Your task to perform on an android device: How big is the earth? Image 0: 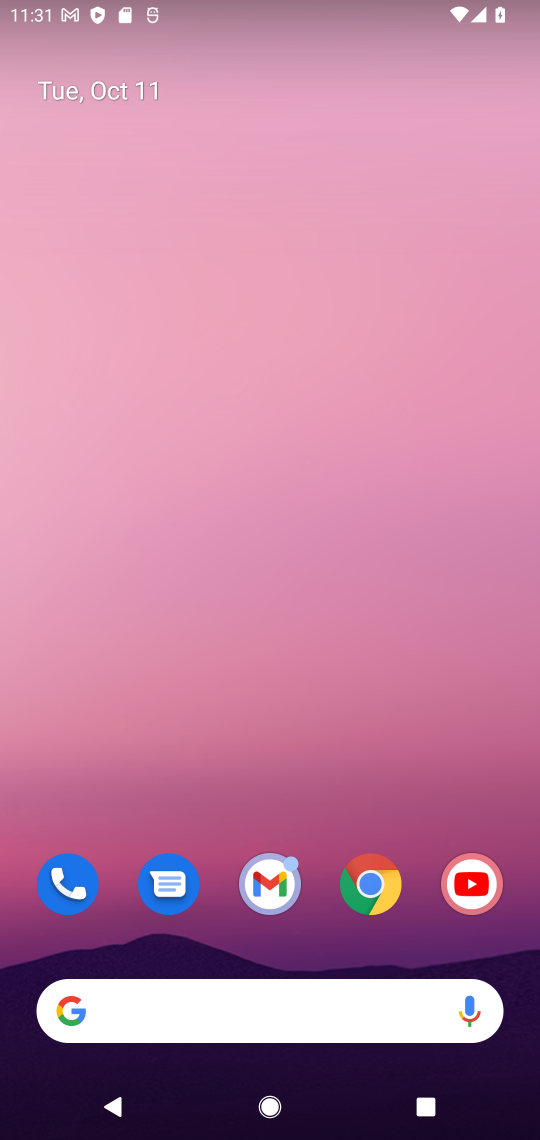
Step 0: drag from (217, 815) to (197, 347)
Your task to perform on an android device: How big is the earth? Image 1: 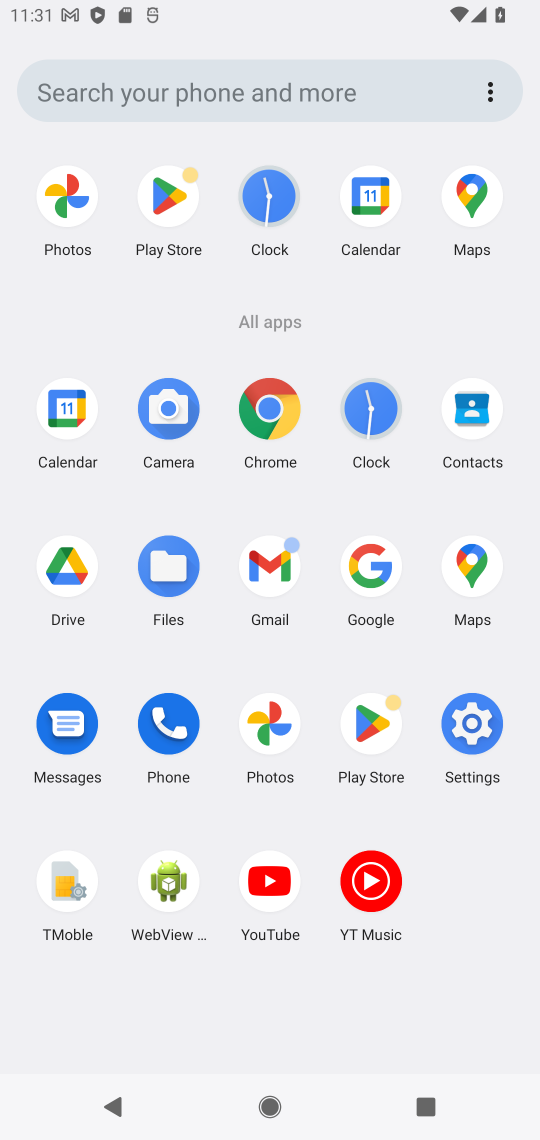
Step 1: click (372, 559)
Your task to perform on an android device: How big is the earth? Image 2: 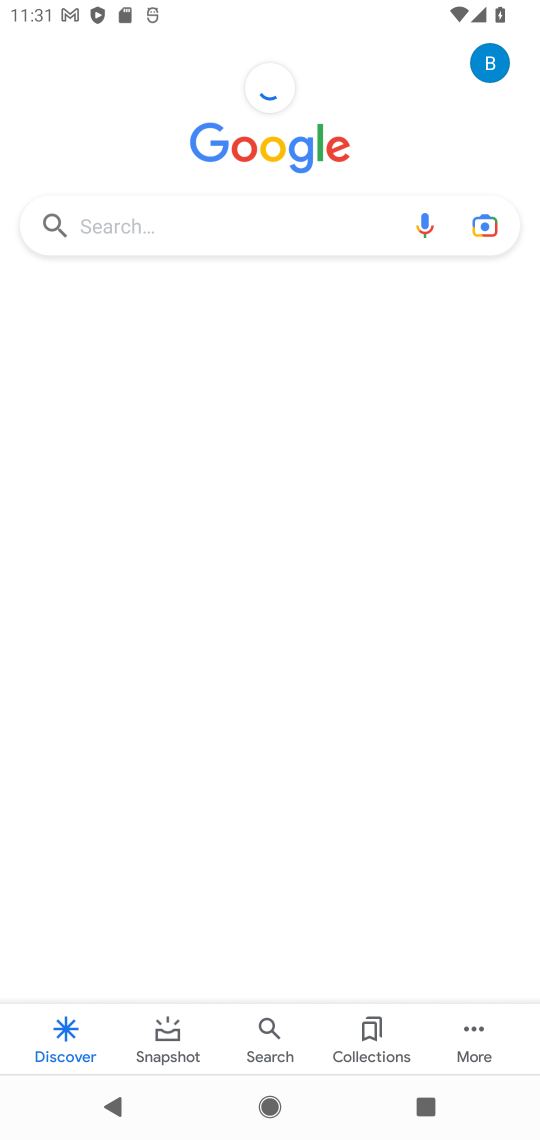
Step 2: click (215, 223)
Your task to perform on an android device: How big is the earth? Image 3: 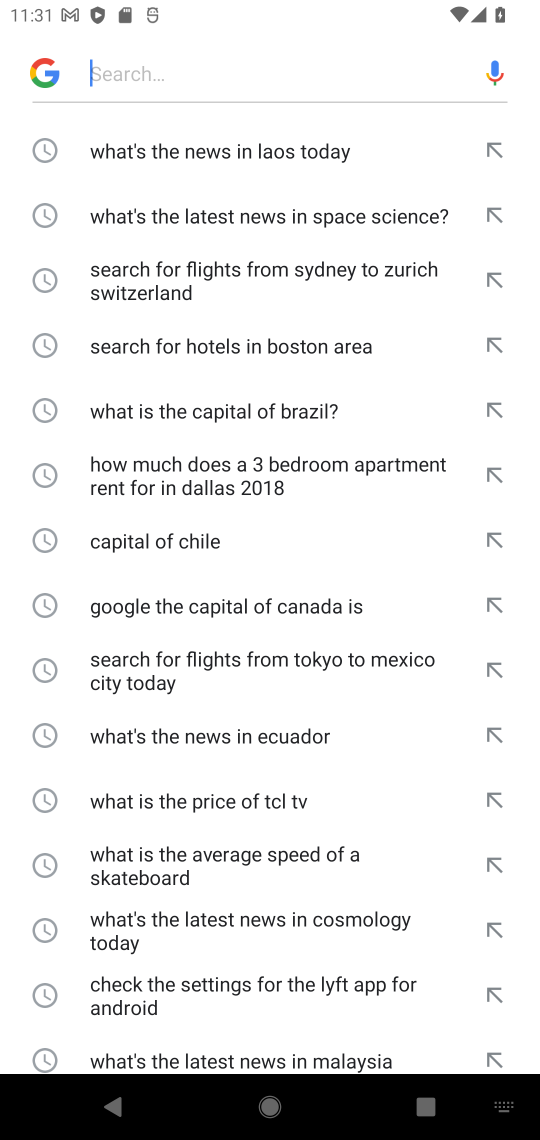
Step 3: type "How big is the earth?"
Your task to perform on an android device: How big is the earth? Image 4: 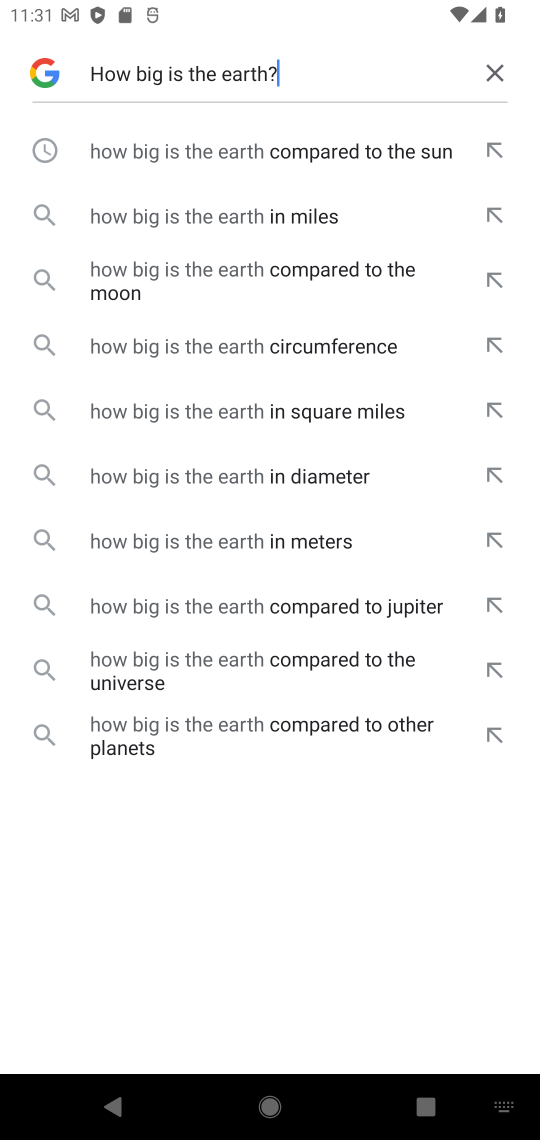
Step 4: click (177, 153)
Your task to perform on an android device: How big is the earth? Image 5: 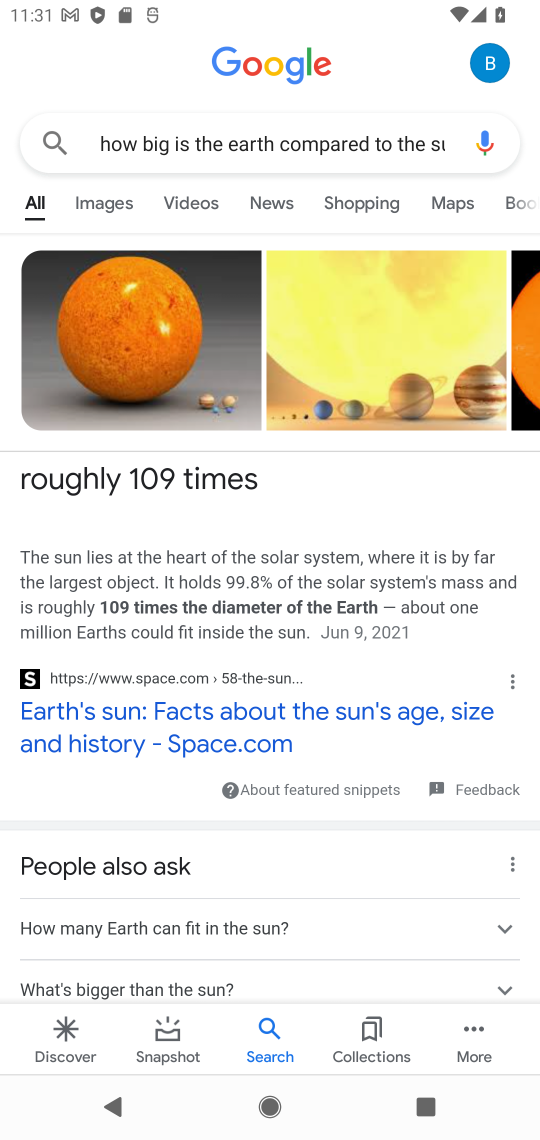
Step 5: task complete